Your task to perform on an android device: turn on translation in the chrome app Image 0: 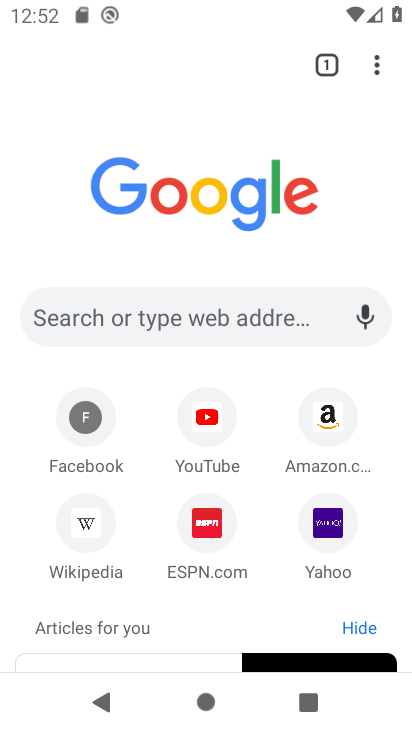
Step 0: click (376, 67)
Your task to perform on an android device: turn on translation in the chrome app Image 1: 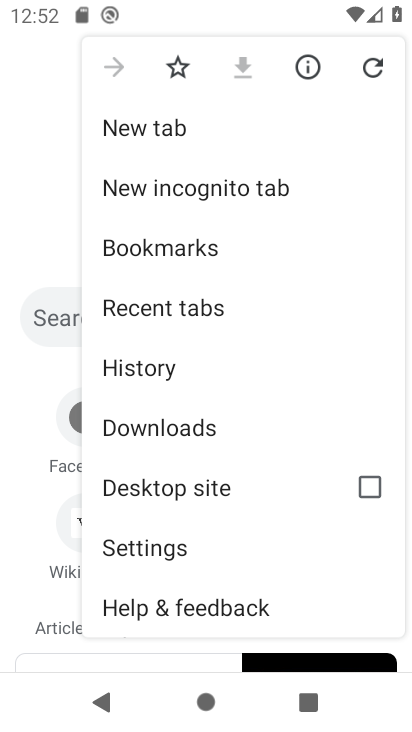
Step 1: click (152, 547)
Your task to perform on an android device: turn on translation in the chrome app Image 2: 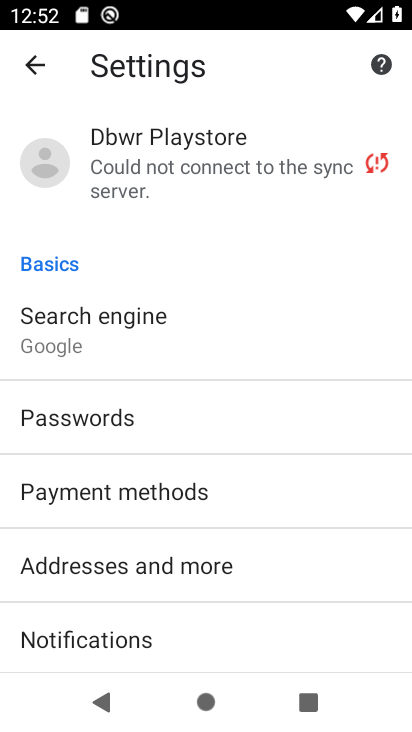
Step 2: drag from (229, 536) to (211, 202)
Your task to perform on an android device: turn on translation in the chrome app Image 3: 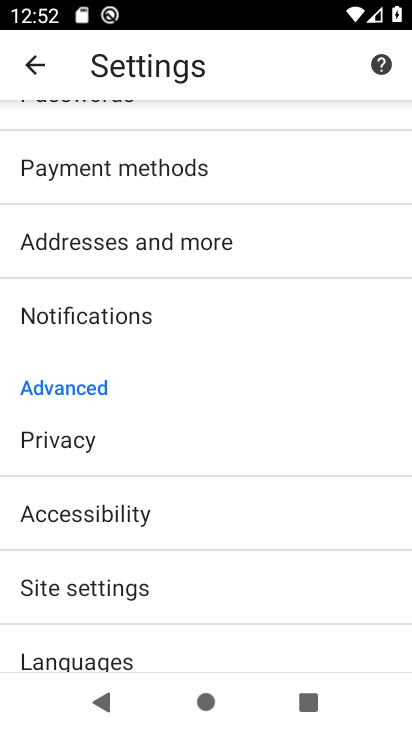
Step 3: click (71, 658)
Your task to perform on an android device: turn on translation in the chrome app Image 4: 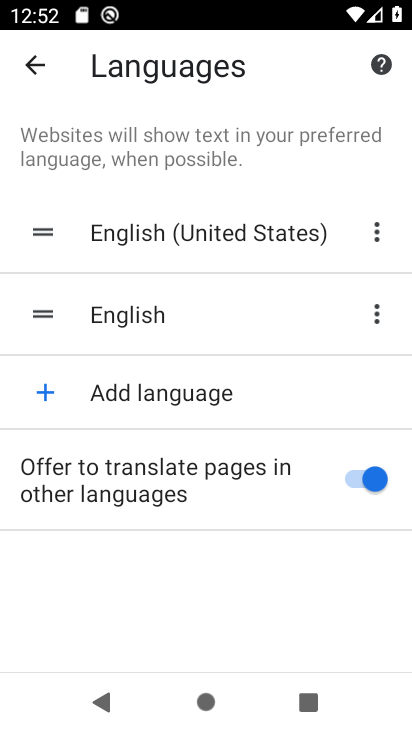
Step 4: task complete